Your task to perform on an android device: see creations saved in the google photos Image 0: 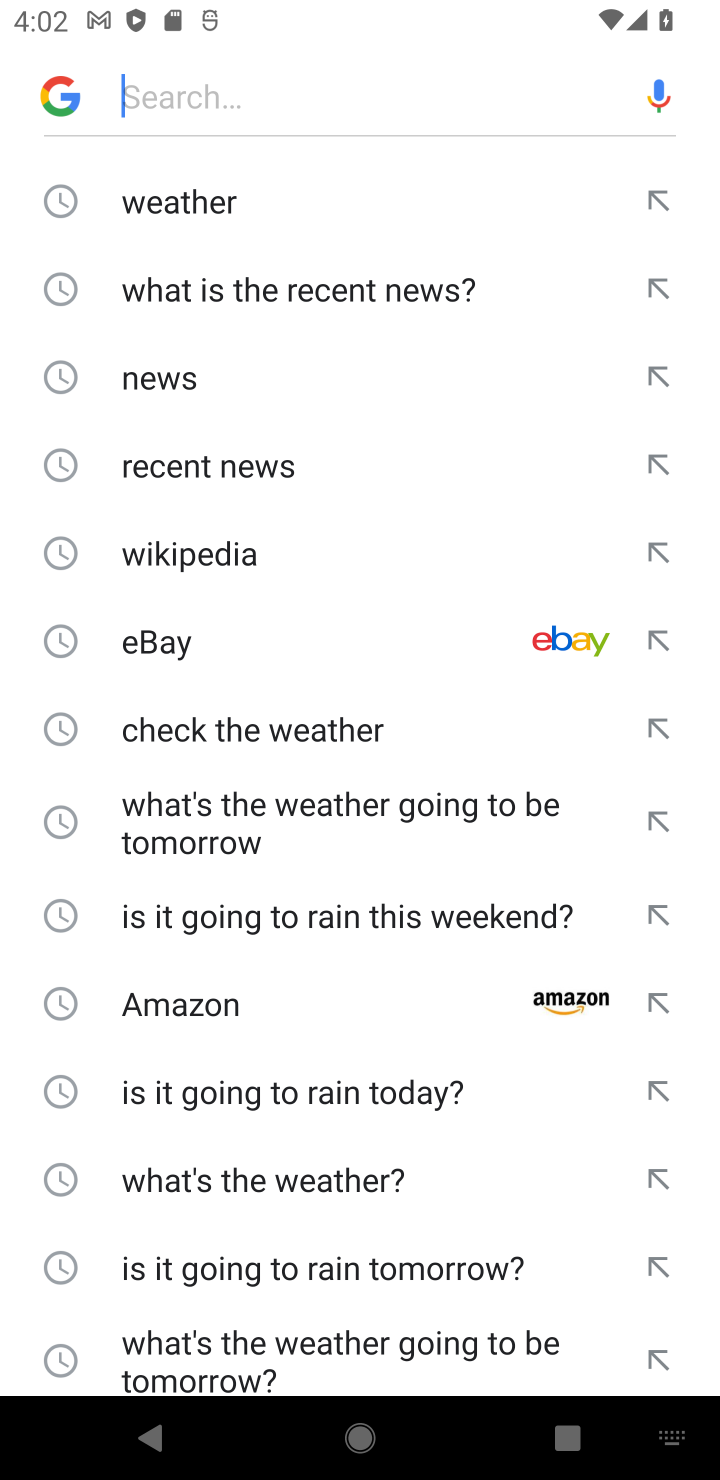
Step 0: press home button
Your task to perform on an android device: see creations saved in the google photos Image 1: 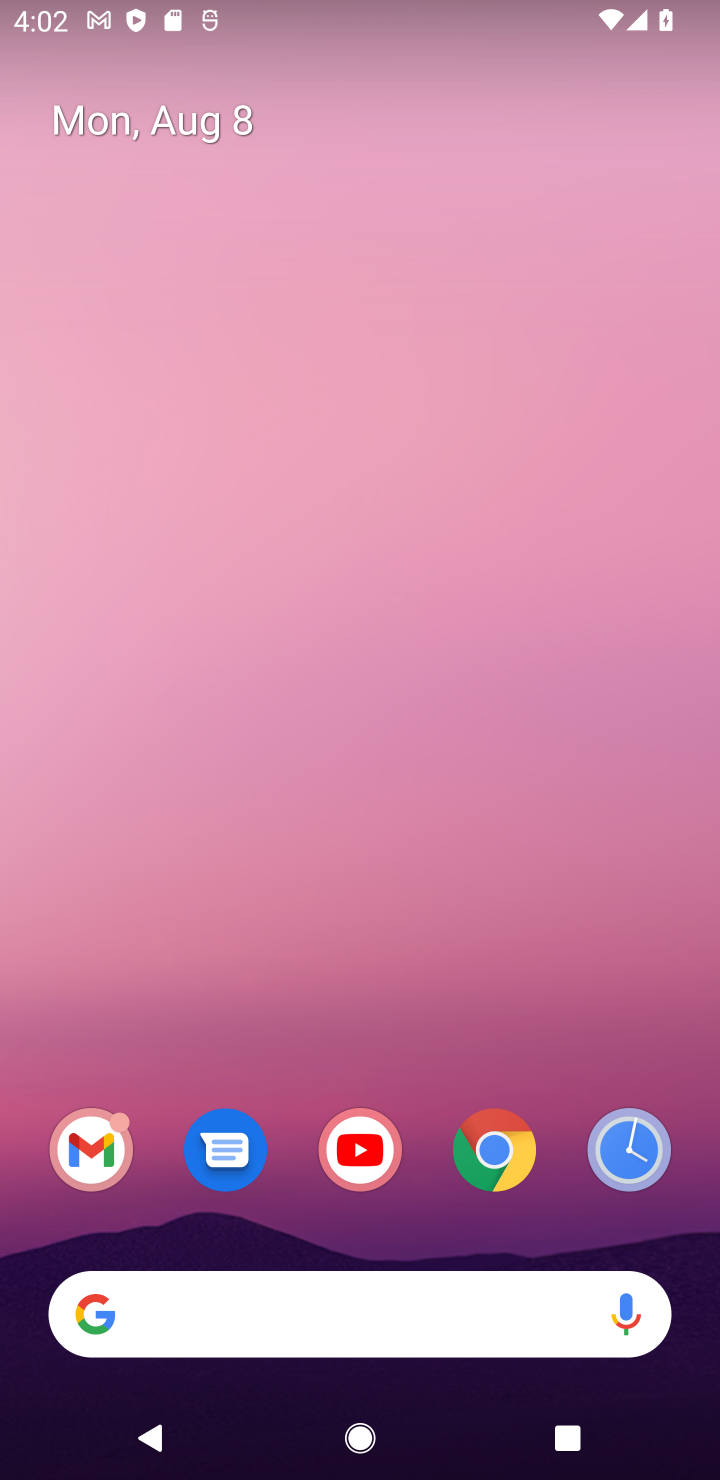
Step 1: drag from (426, 1244) to (256, 163)
Your task to perform on an android device: see creations saved in the google photos Image 2: 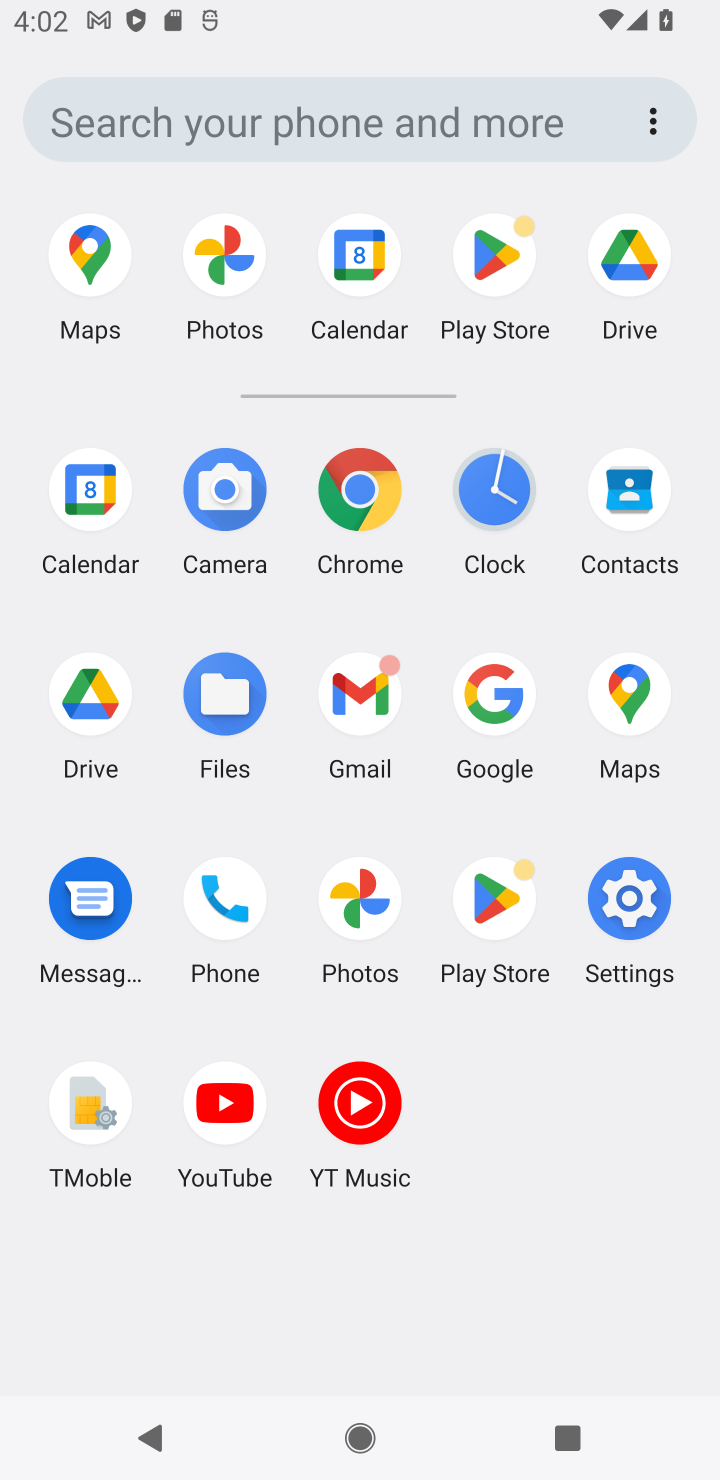
Step 2: click (377, 895)
Your task to perform on an android device: see creations saved in the google photos Image 3: 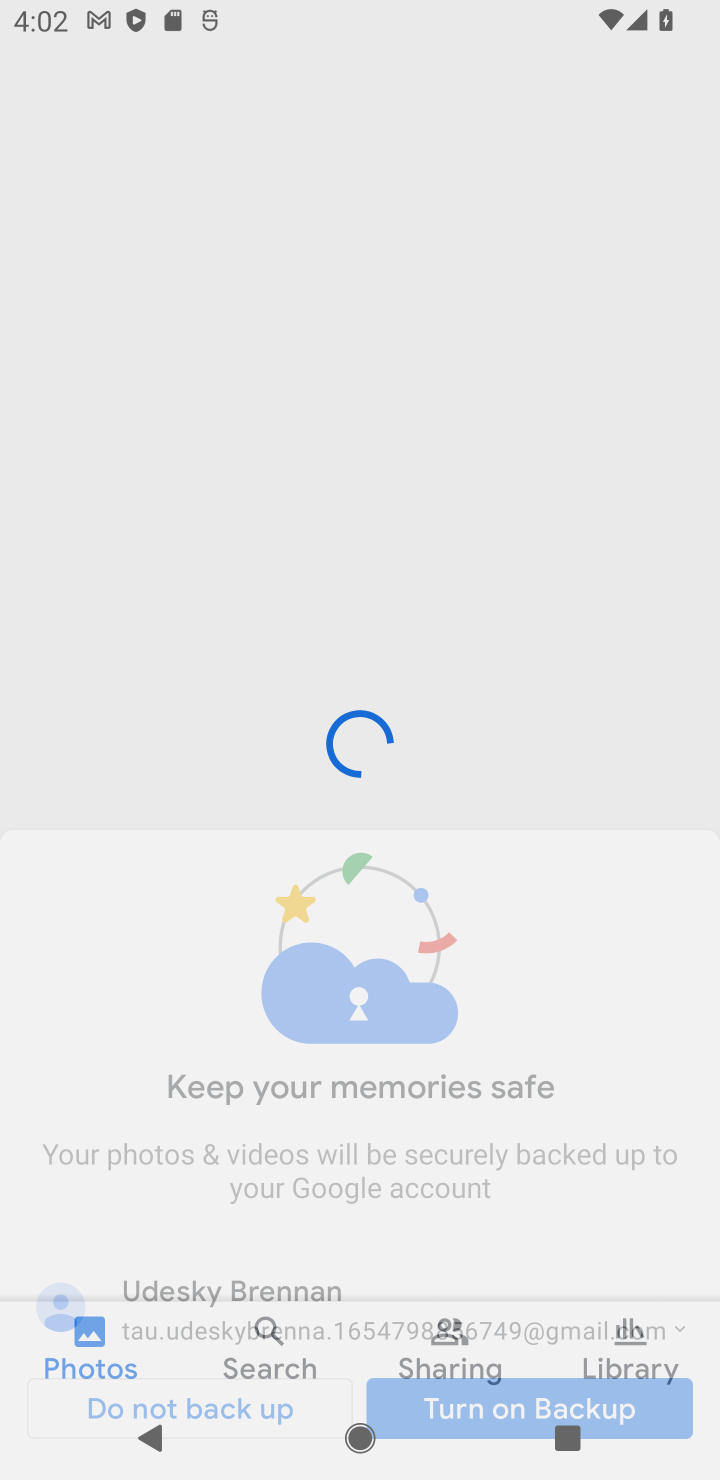
Step 3: task complete